Your task to perform on an android device: toggle pop-ups in chrome Image 0: 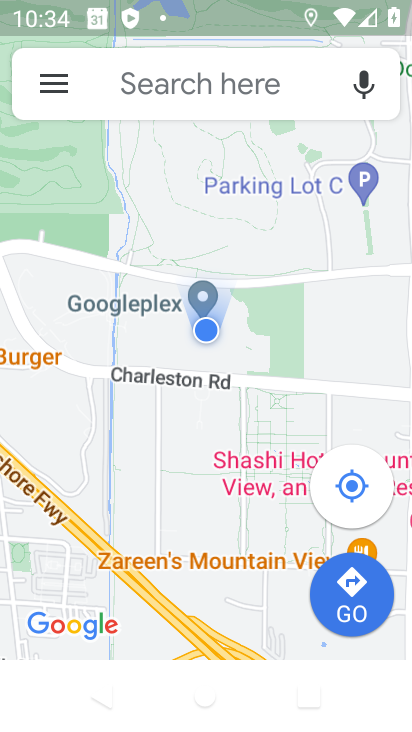
Step 0: press home button
Your task to perform on an android device: toggle pop-ups in chrome Image 1: 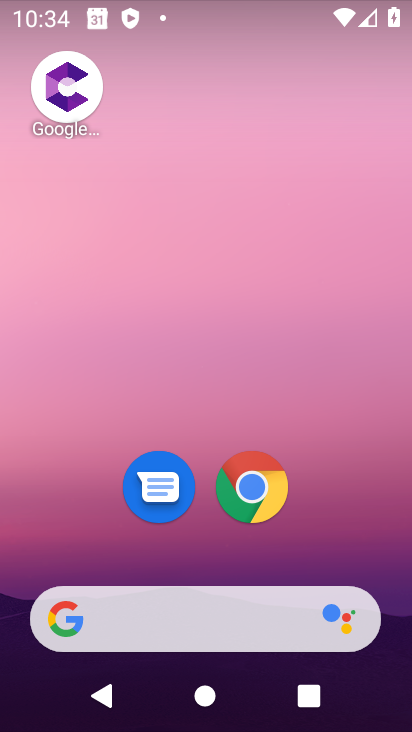
Step 1: click (258, 502)
Your task to perform on an android device: toggle pop-ups in chrome Image 2: 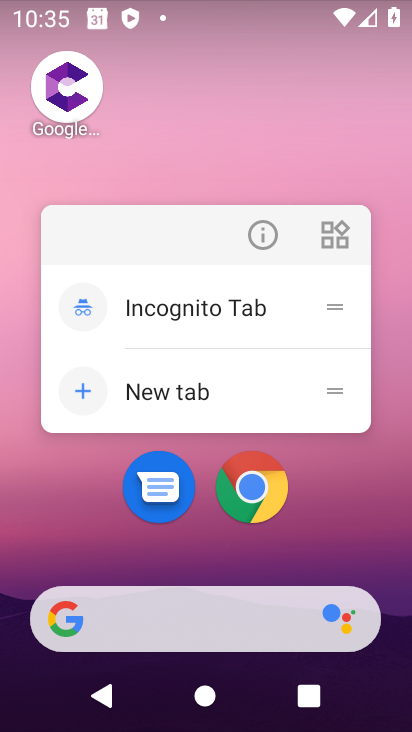
Step 2: click (237, 497)
Your task to perform on an android device: toggle pop-ups in chrome Image 3: 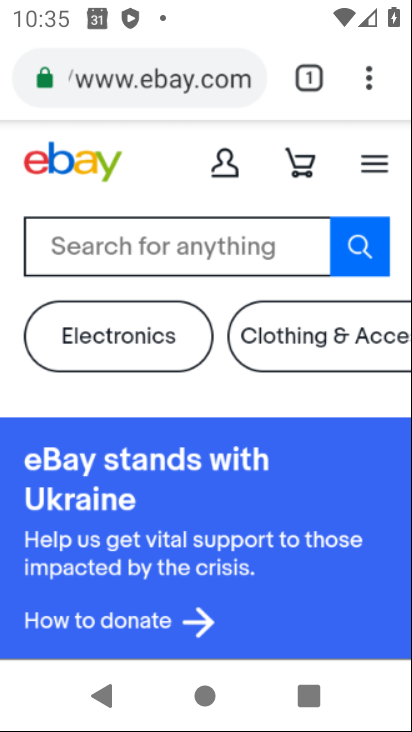
Step 3: click (372, 76)
Your task to perform on an android device: toggle pop-ups in chrome Image 4: 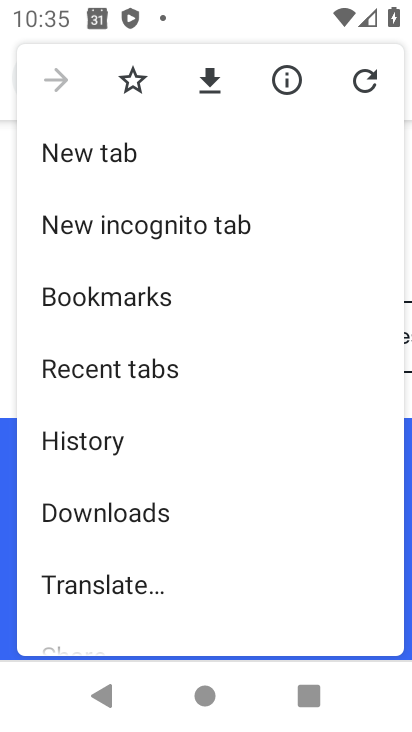
Step 4: drag from (193, 577) to (168, 143)
Your task to perform on an android device: toggle pop-ups in chrome Image 5: 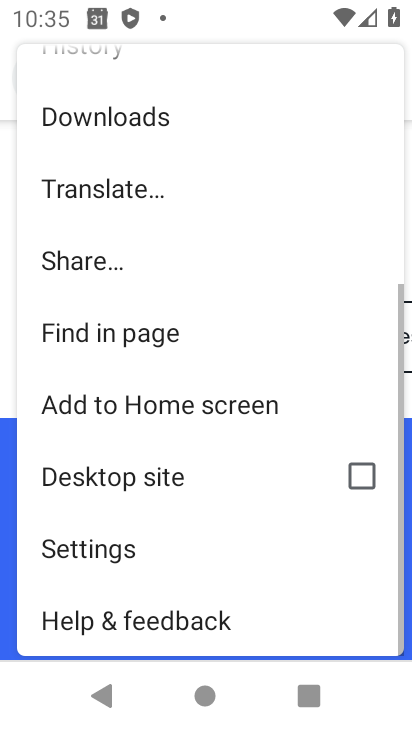
Step 5: click (119, 546)
Your task to perform on an android device: toggle pop-ups in chrome Image 6: 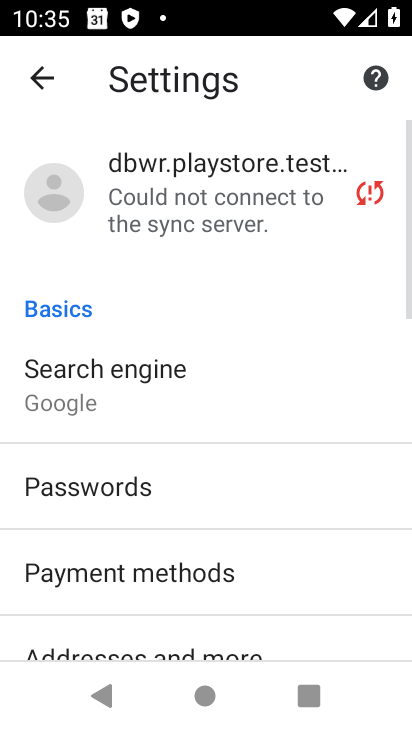
Step 6: drag from (279, 614) to (265, 320)
Your task to perform on an android device: toggle pop-ups in chrome Image 7: 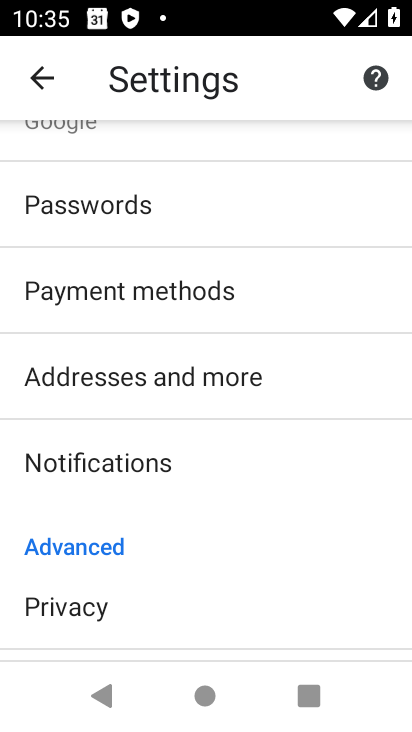
Step 7: drag from (136, 586) to (150, 336)
Your task to perform on an android device: toggle pop-ups in chrome Image 8: 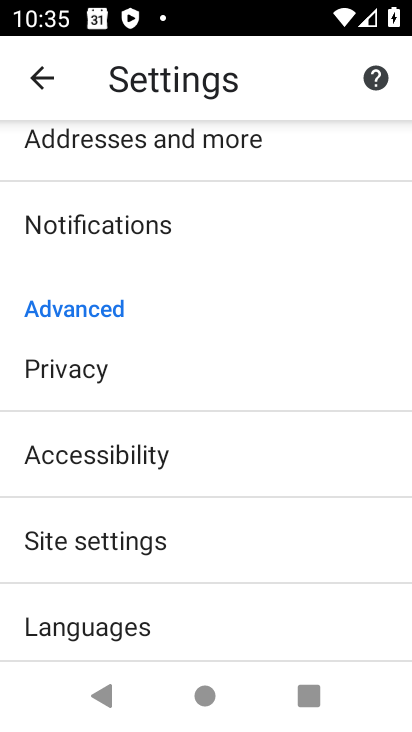
Step 8: click (104, 548)
Your task to perform on an android device: toggle pop-ups in chrome Image 9: 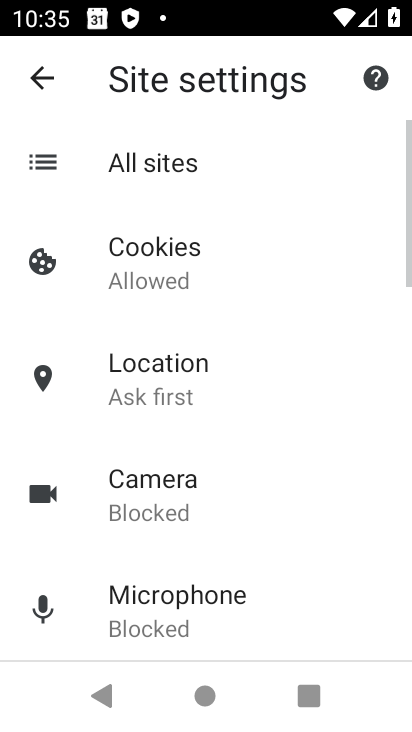
Step 9: drag from (255, 603) to (255, 267)
Your task to perform on an android device: toggle pop-ups in chrome Image 10: 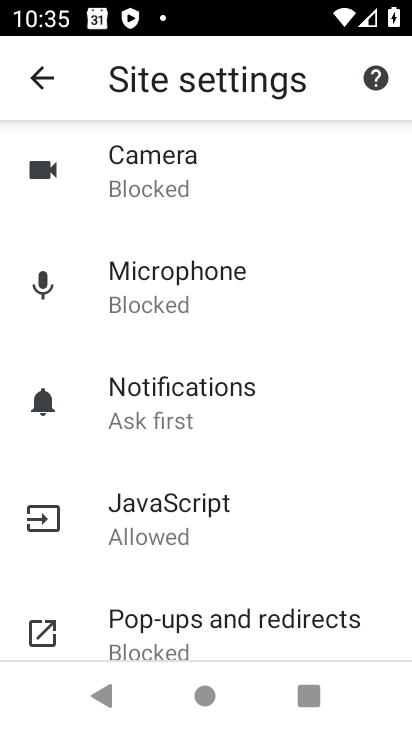
Step 10: click (166, 618)
Your task to perform on an android device: toggle pop-ups in chrome Image 11: 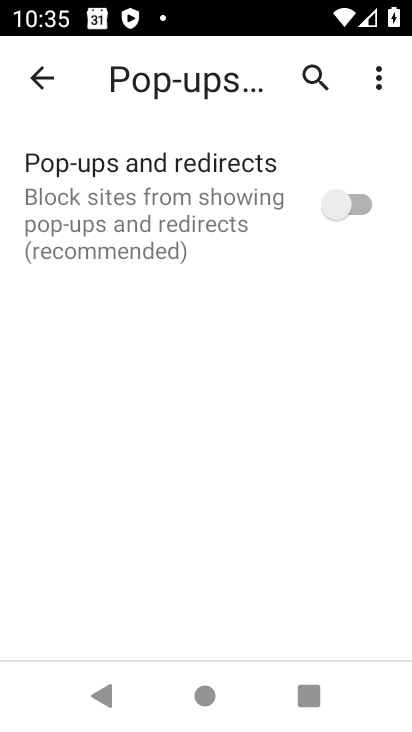
Step 11: click (358, 211)
Your task to perform on an android device: toggle pop-ups in chrome Image 12: 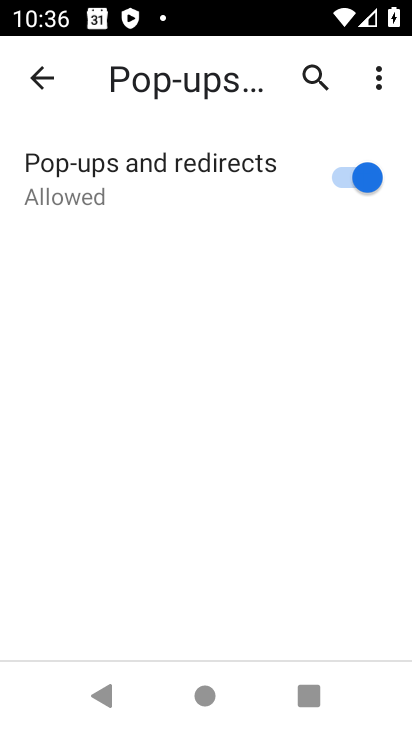
Step 12: task complete